Your task to perform on an android device: Open calendar and show me the fourth week of next month Image 0: 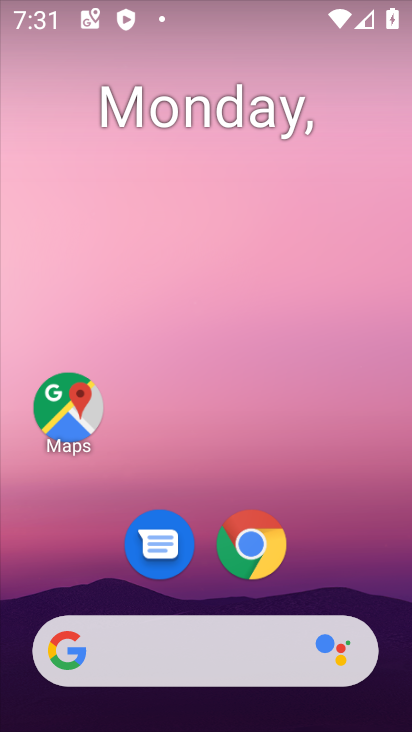
Step 0: drag from (321, 534) to (177, 32)
Your task to perform on an android device: Open calendar and show me the fourth week of next month Image 1: 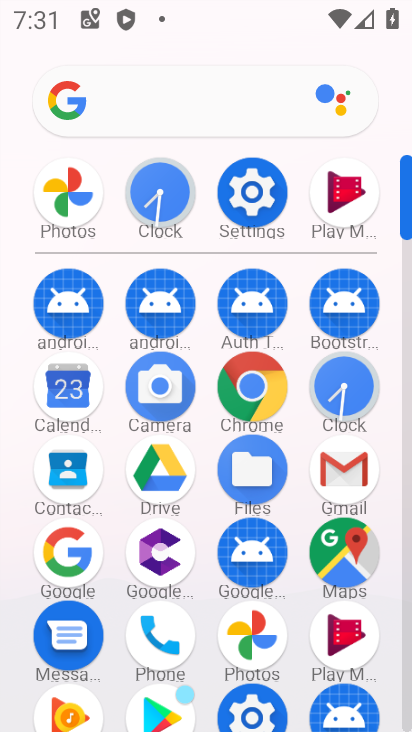
Step 1: click (83, 387)
Your task to perform on an android device: Open calendar and show me the fourth week of next month Image 2: 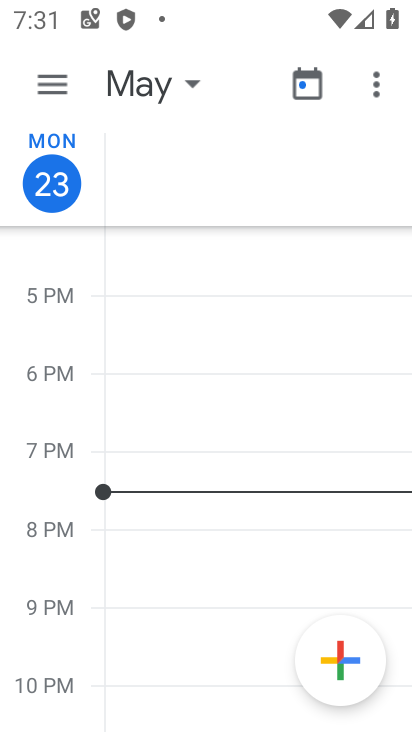
Step 2: click (48, 76)
Your task to perform on an android device: Open calendar and show me the fourth week of next month Image 3: 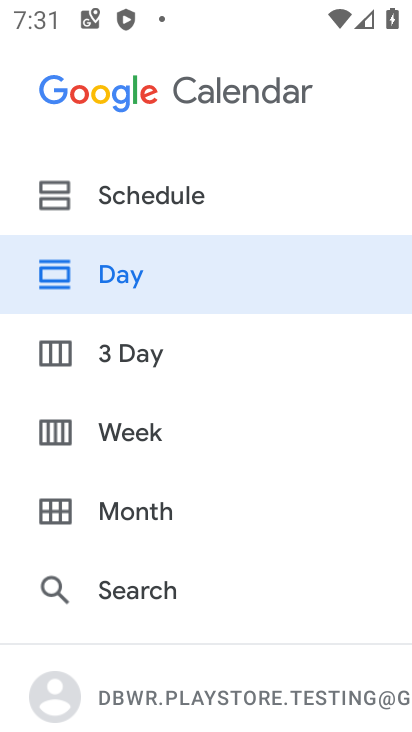
Step 3: click (145, 428)
Your task to perform on an android device: Open calendar and show me the fourth week of next month Image 4: 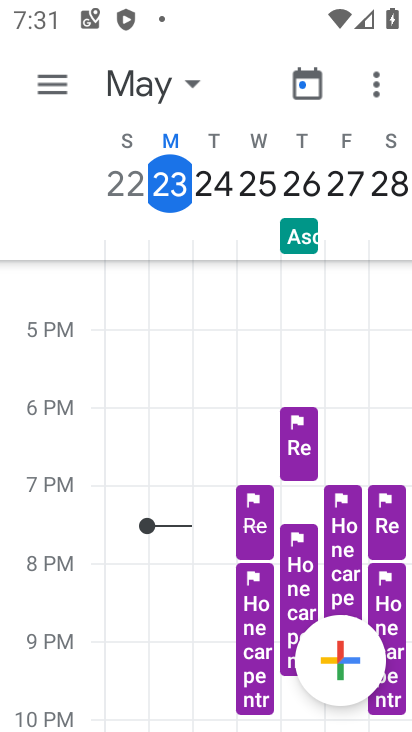
Step 4: click (194, 90)
Your task to perform on an android device: Open calendar and show me the fourth week of next month Image 5: 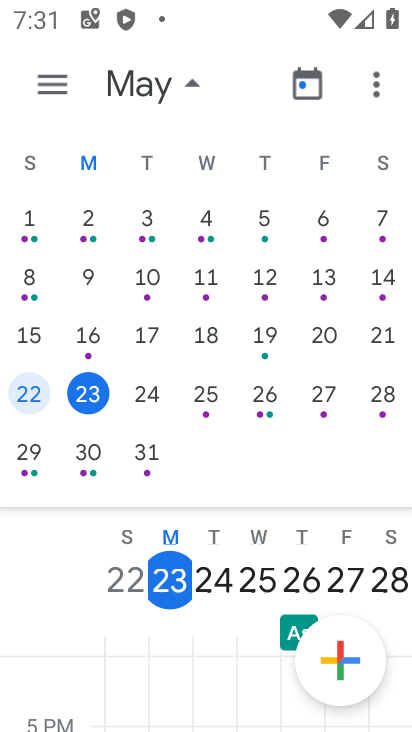
Step 5: drag from (349, 305) to (47, 280)
Your task to perform on an android device: Open calendar and show me the fourth week of next month Image 6: 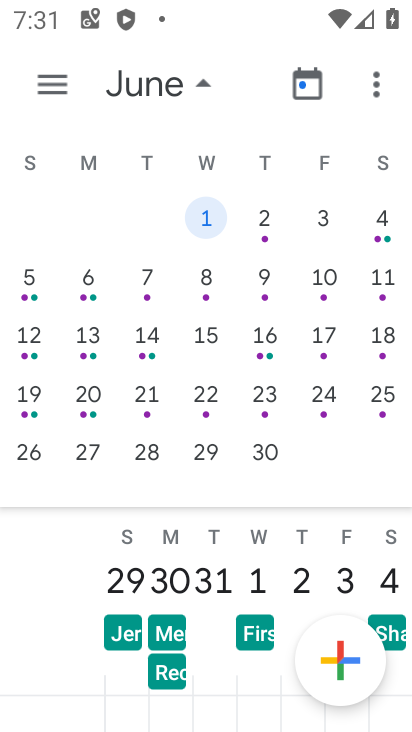
Step 6: click (200, 397)
Your task to perform on an android device: Open calendar and show me the fourth week of next month Image 7: 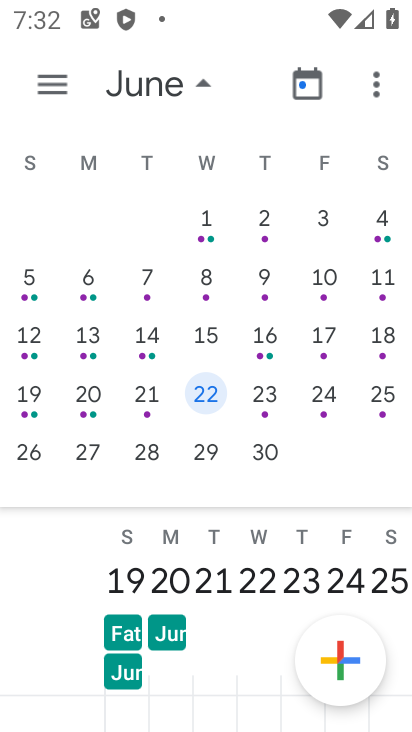
Step 7: task complete